Your task to perform on an android device: create a new album in the google photos Image 0: 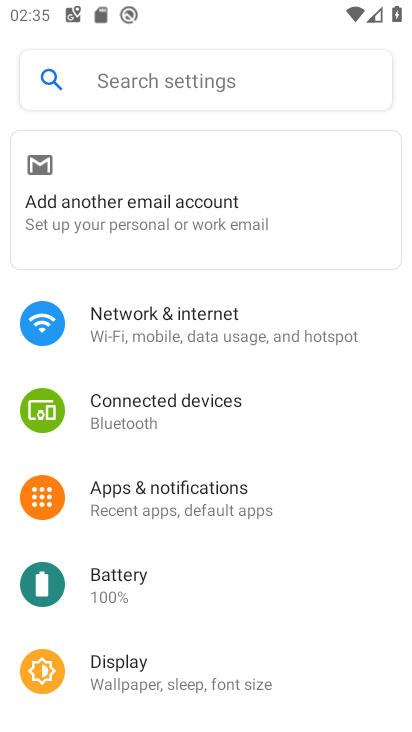
Step 0: press home button
Your task to perform on an android device: create a new album in the google photos Image 1: 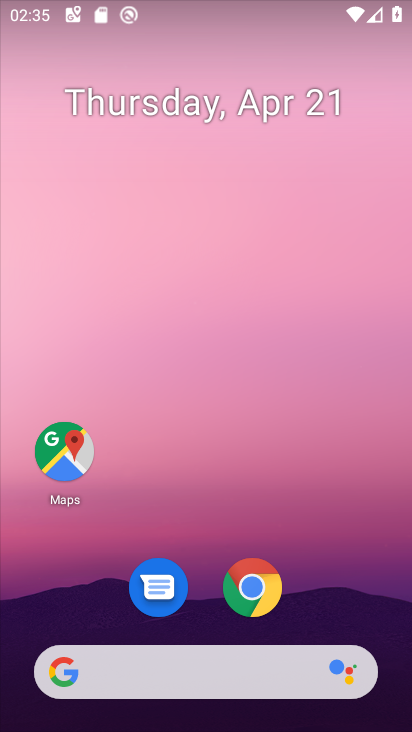
Step 1: drag from (320, 602) to (313, 125)
Your task to perform on an android device: create a new album in the google photos Image 2: 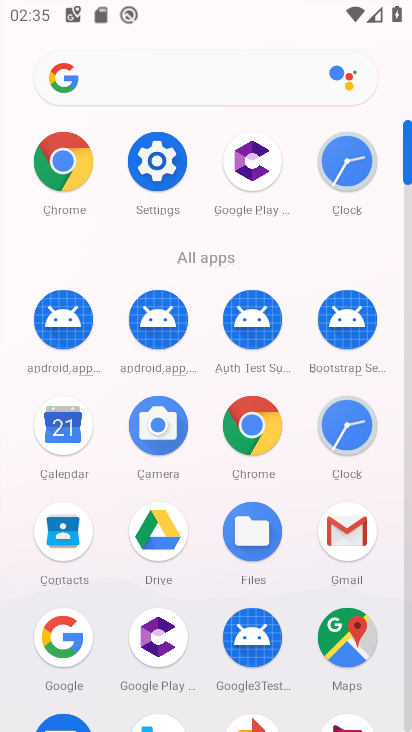
Step 2: drag from (201, 571) to (208, 298)
Your task to perform on an android device: create a new album in the google photos Image 3: 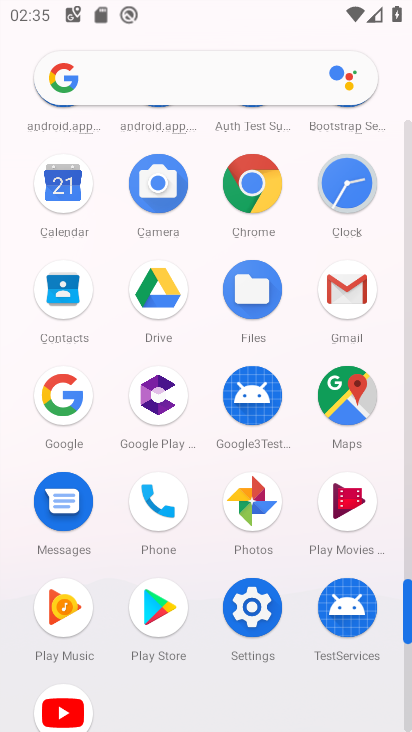
Step 3: click (247, 515)
Your task to perform on an android device: create a new album in the google photos Image 4: 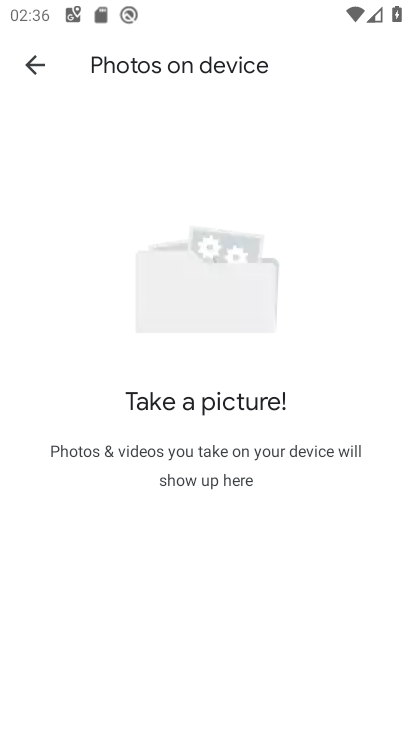
Step 4: click (44, 61)
Your task to perform on an android device: create a new album in the google photos Image 5: 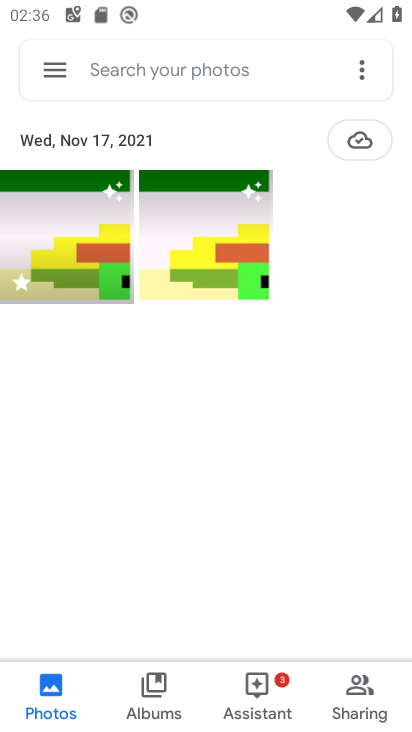
Step 5: click (159, 694)
Your task to perform on an android device: create a new album in the google photos Image 6: 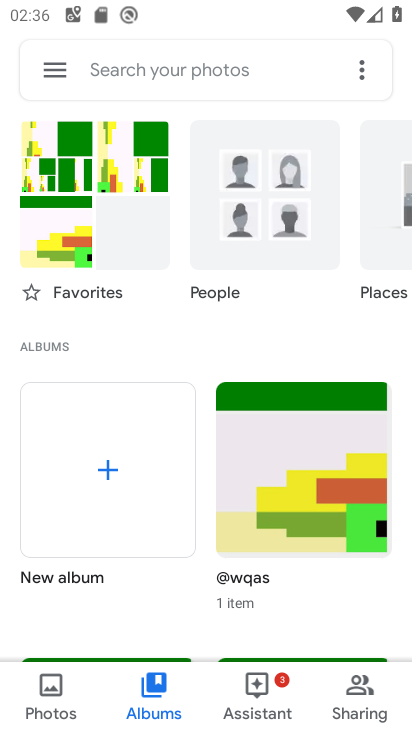
Step 6: click (89, 493)
Your task to perform on an android device: create a new album in the google photos Image 7: 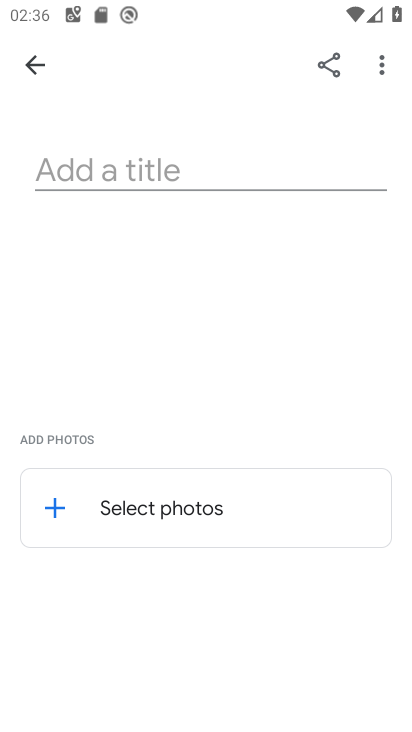
Step 7: click (215, 169)
Your task to perform on an android device: create a new album in the google photos Image 8: 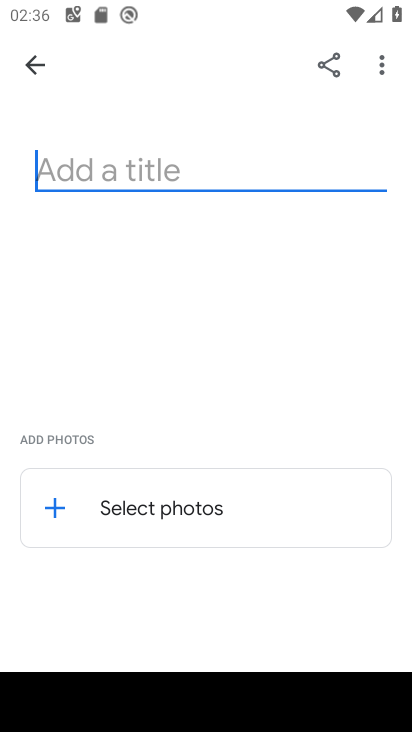
Step 8: type "fav"
Your task to perform on an android device: create a new album in the google photos Image 9: 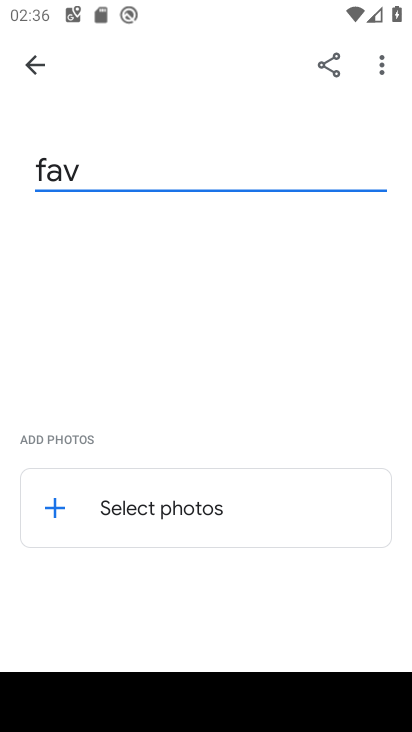
Step 9: click (146, 500)
Your task to perform on an android device: create a new album in the google photos Image 10: 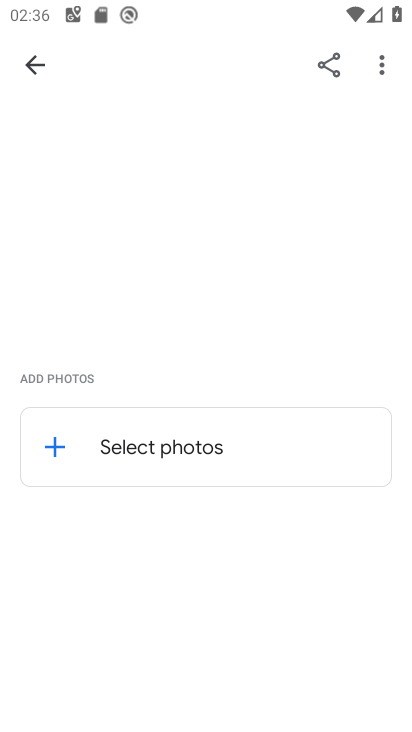
Step 10: click (45, 446)
Your task to perform on an android device: create a new album in the google photos Image 11: 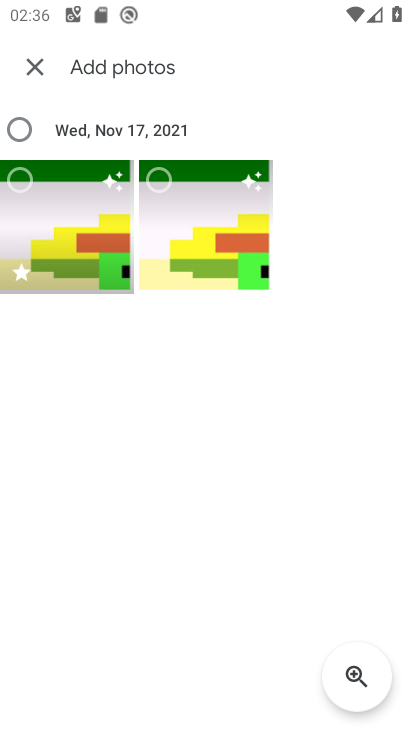
Step 11: click (218, 234)
Your task to perform on an android device: create a new album in the google photos Image 12: 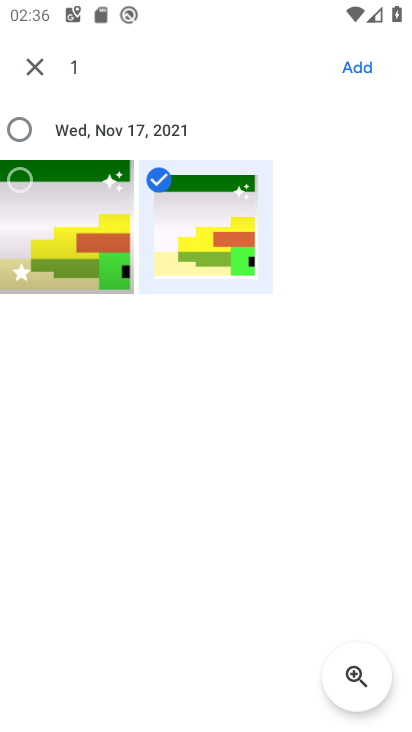
Step 12: click (351, 67)
Your task to perform on an android device: create a new album in the google photos Image 13: 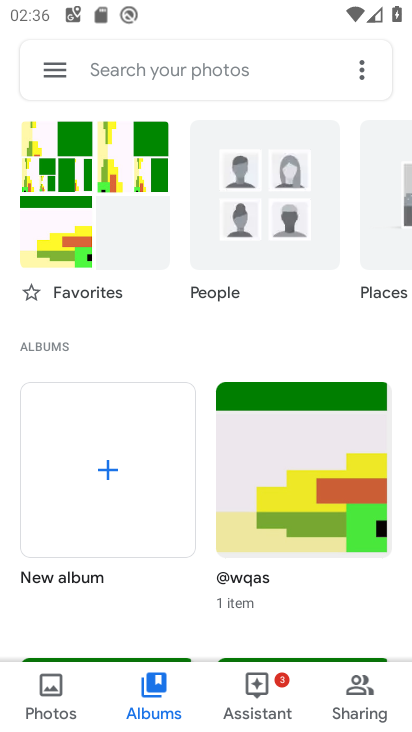
Step 13: task complete